Your task to perform on an android device: manage bookmarks in the chrome app Image 0: 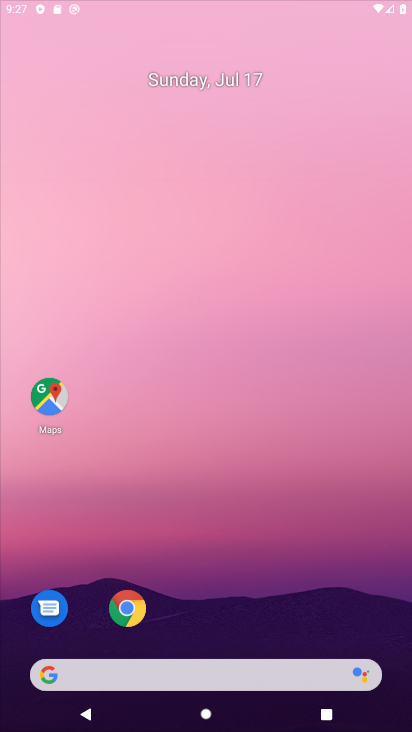
Step 0: drag from (235, 41) to (158, 17)
Your task to perform on an android device: manage bookmarks in the chrome app Image 1: 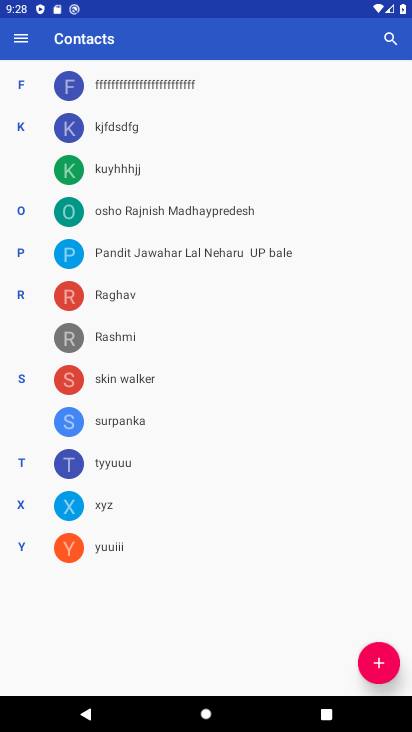
Step 1: press home button
Your task to perform on an android device: manage bookmarks in the chrome app Image 2: 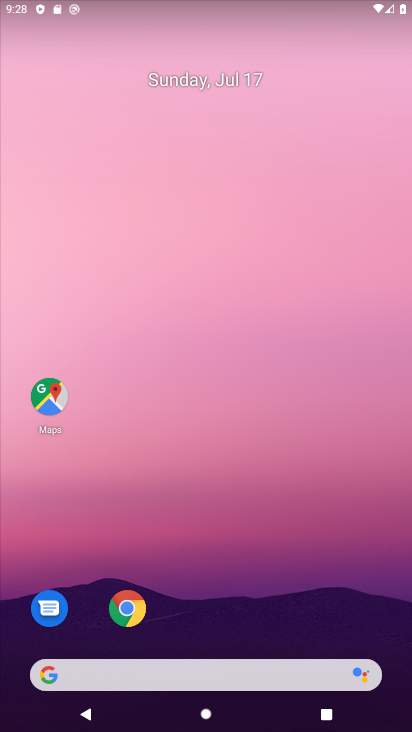
Step 2: drag from (354, 598) to (407, 235)
Your task to perform on an android device: manage bookmarks in the chrome app Image 3: 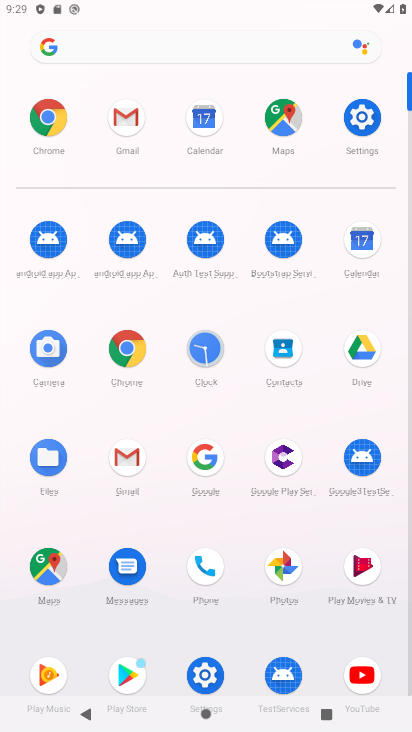
Step 3: click (45, 120)
Your task to perform on an android device: manage bookmarks in the chrome app Image 4: 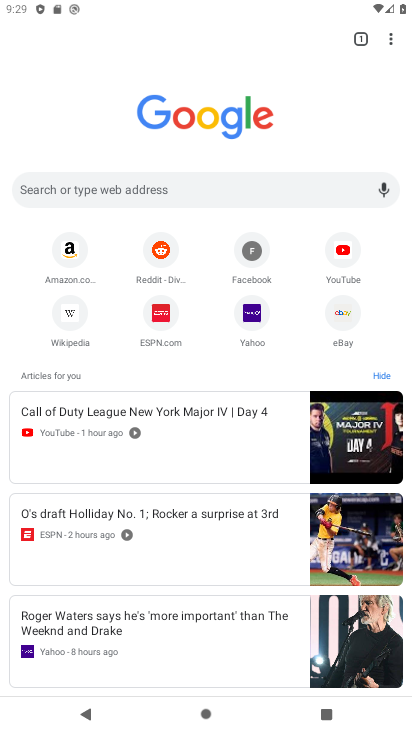
Step 4: drag from (399, 29) to (304, 134)
Your task to perform on an android device: manage bookmarks in the chrome app Image 5: 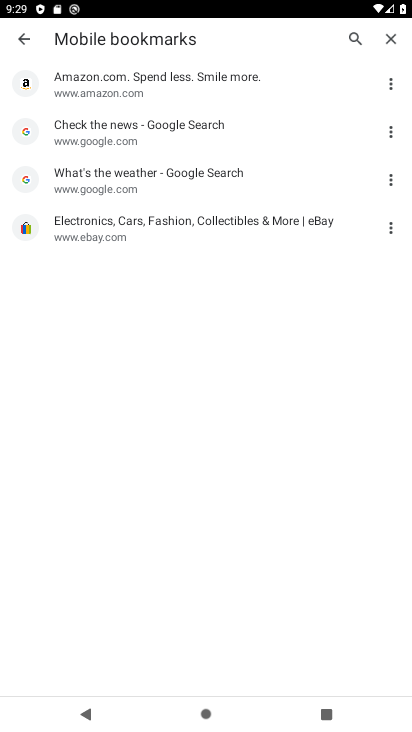
Step 5: click (383, 84)
Your task to perform on an android device: manage bookmarks in the chrome app Image 6: 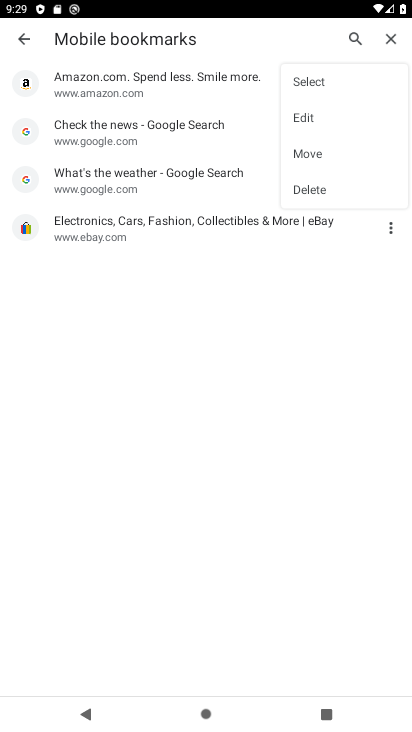
Step 6: click (295, 191)
Your task to perform on an android device: manage bookmarks in the chrome app Image 7: 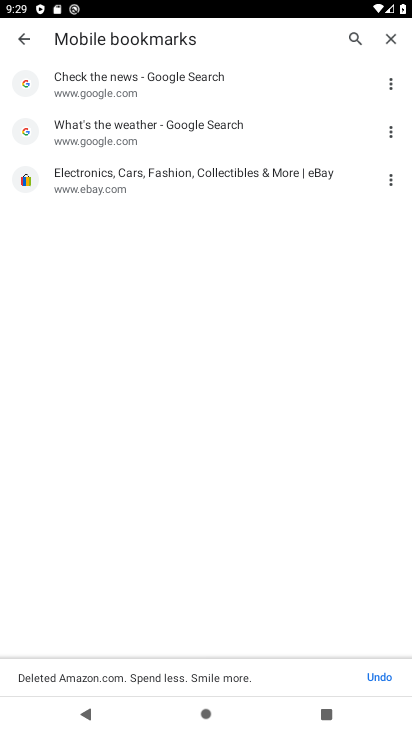
Step 7: task complete